Your task to perform on an android device: Open Google Image 0: 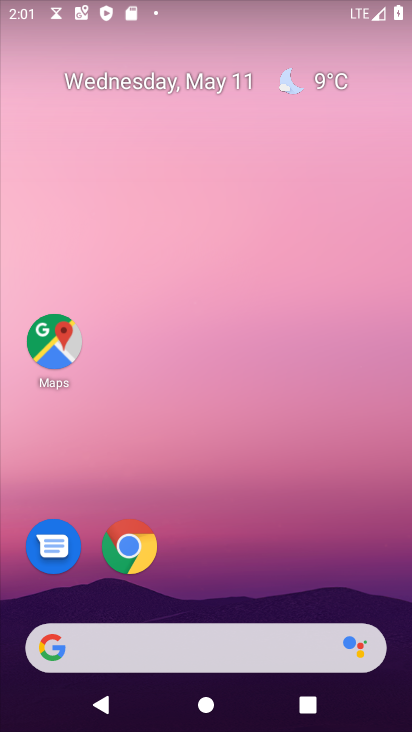
Step 0: drag from (291, 628) to (192, 4)
Your task to perform on an android device: Open Google Image 1: 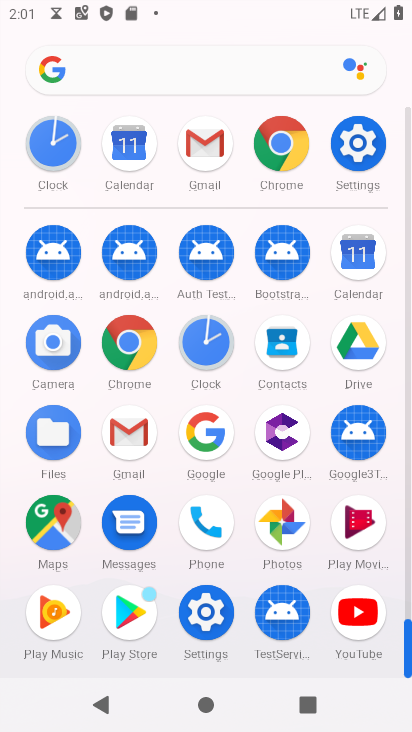
Step 1: click (127, 342)
Your task to perform on an android device: Open Google Image 2: 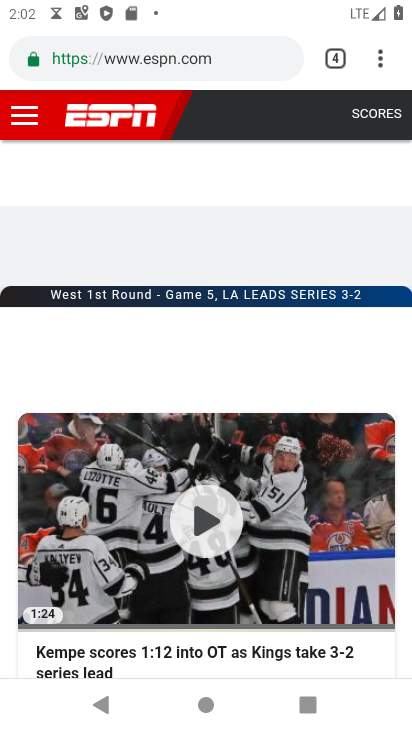
Step 2: task complete